Your task to perform on an android device: turn off location Image 0: 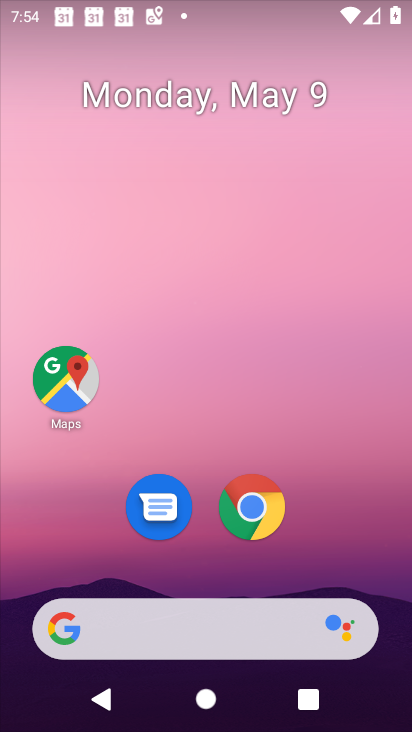
Step 0: drag from (254, 666) to (386, 128)
Your task to perform on an android device: turn off location Image 1: 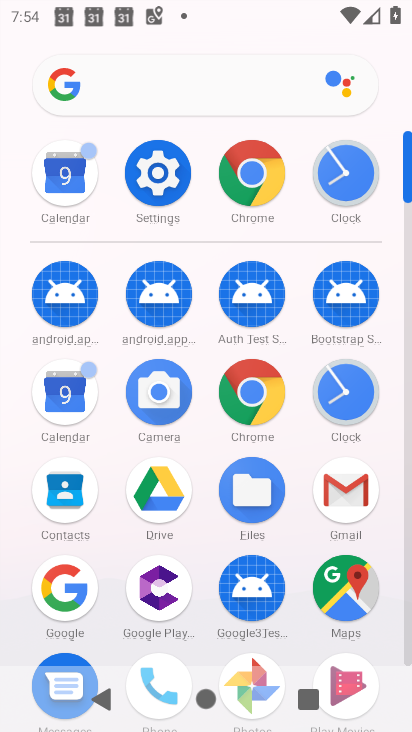
Step 1: click (152, 194)
Your task to perform on an android device: turn off location Image 2: 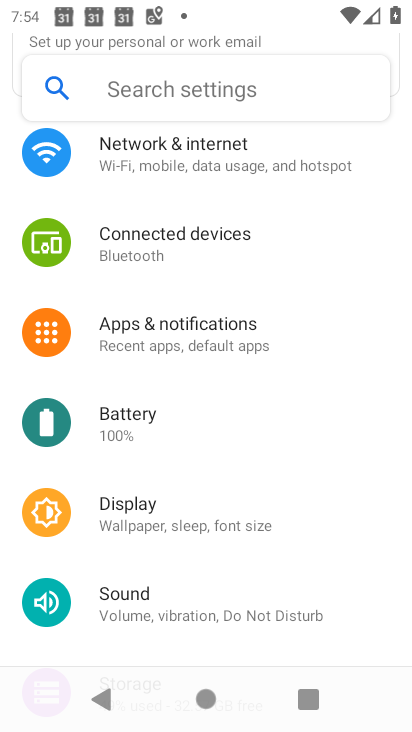
Step 2: click (171, 91)
Your task to perform on an android device: turn off location Image 3: 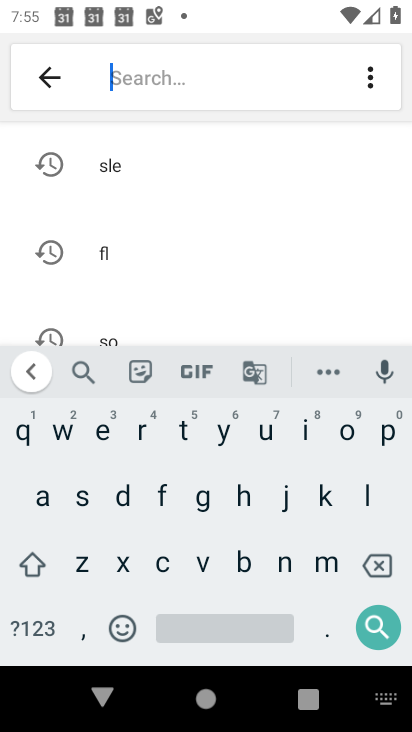
Step 3: click (366, 498)
Your task to perform on an android device: turn off location Image 4: 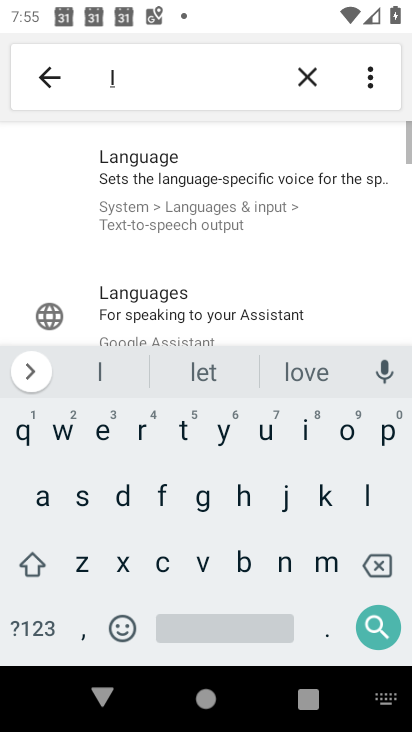
Step 4: click (342, 434)
Your task to perform on an android device: turn off location Image 5: 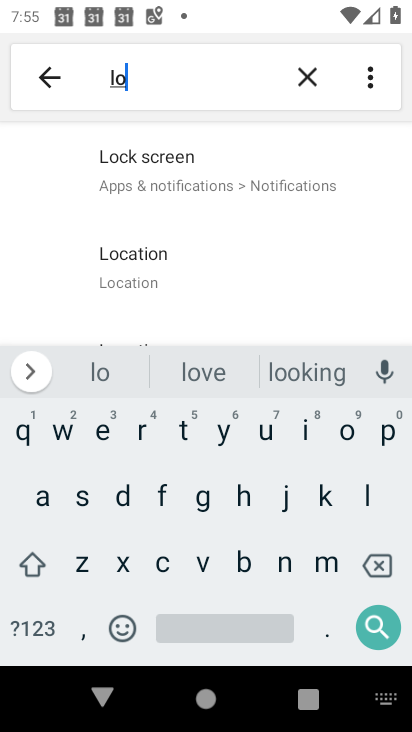
Step 5: click (110, 261)
Your task to perform on an android device: turn off location Image 6: 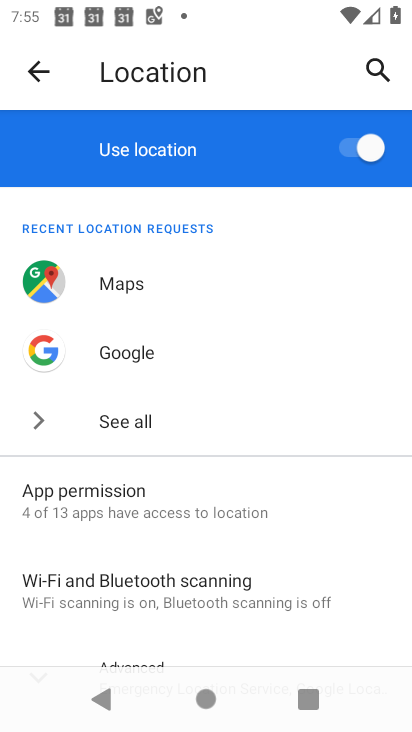
Step 6: click (351, 142)
Your task to perform on an android device: turn off location Image 7: 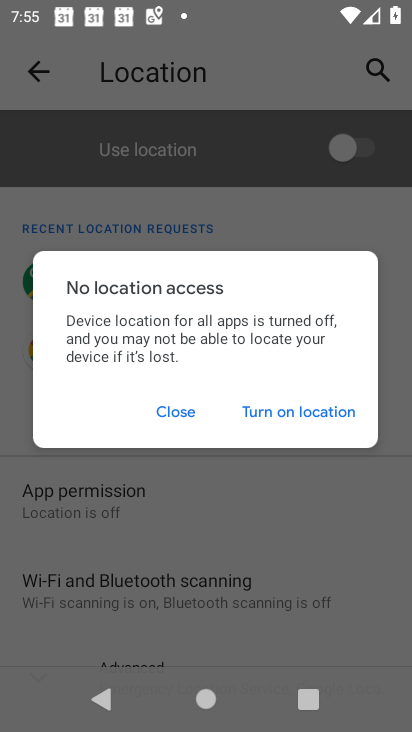
Step 7: task complete